Your task to perform on an android device: Go to privacy settings Image 0: 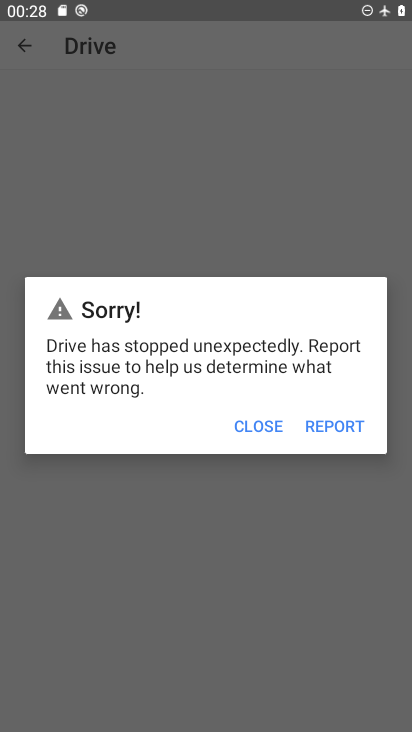
Step 0: press home button
Your task to perform on an android device: Go to privacy settings Image 1: 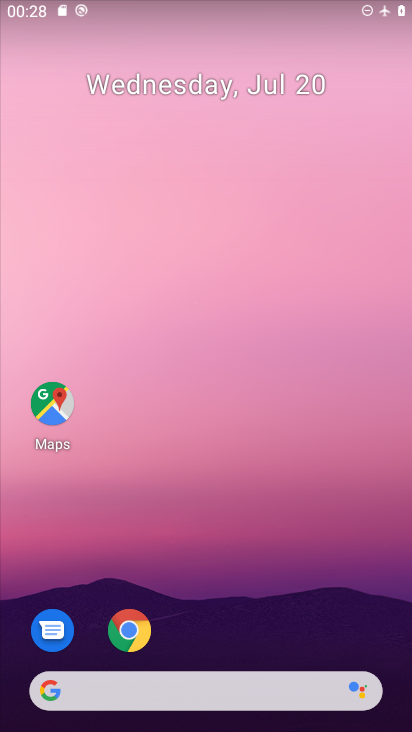
Step 1: drag from (211, 638) to (203, 162)
Your task to perform on an android device: Go to privacy settings Image 2: 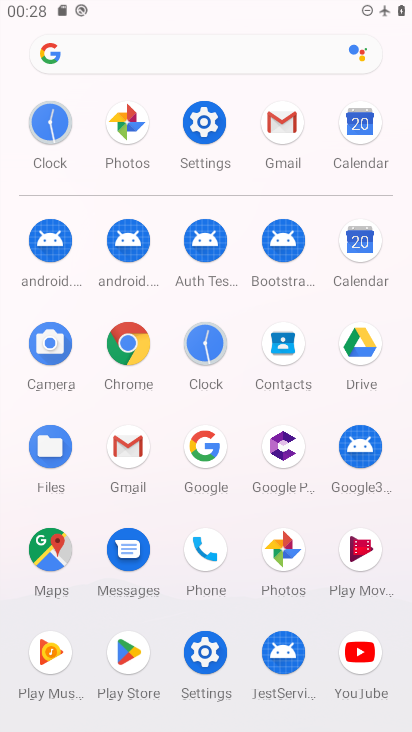
Step 2: click (203, 157)
Your task to perform on an android device: Go to privacy settings Image 3: 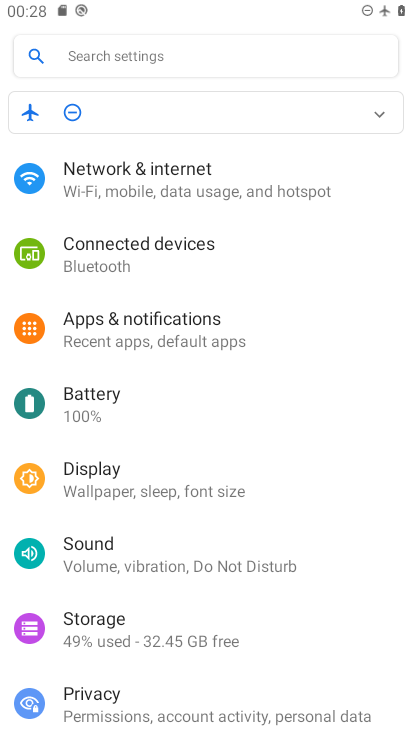
Step 3: click (143, 692)
Your task to perform on an android device: Go to privacy settings Image 4: 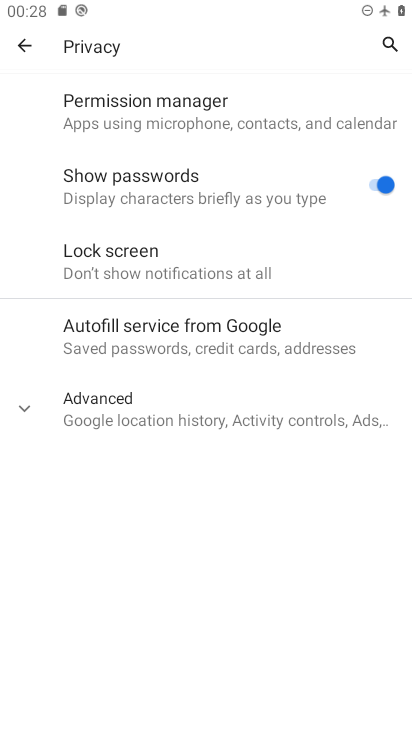
Step 4: task complete